Your task to perform on an android device: set the timer Image 0: 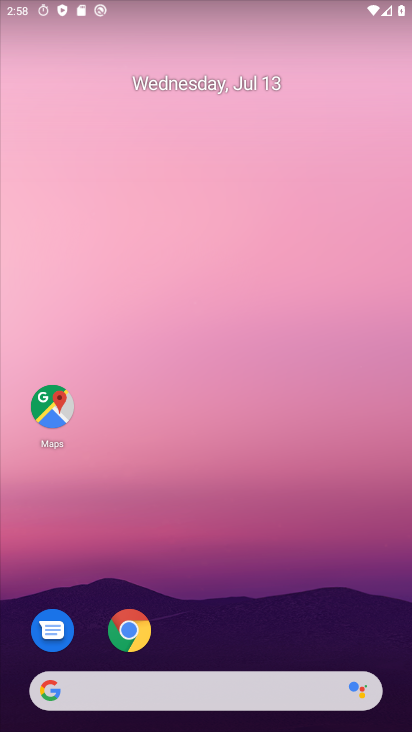
Step 0: drag from (92, 541) to (288, 8)
Your task to perform on an android device: set the timer Image 1: 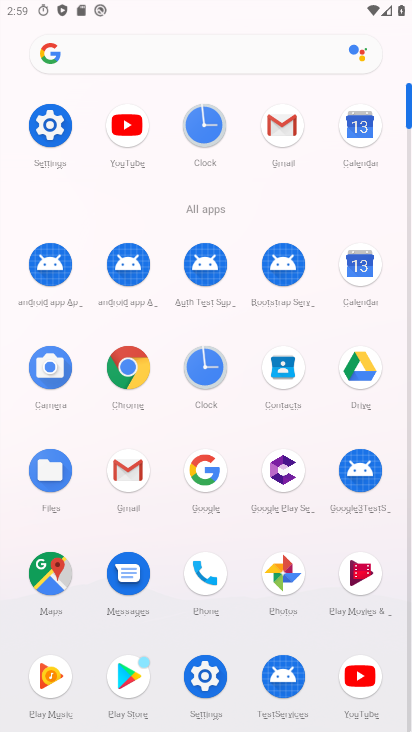
Step 1: click (220, 373)
Your task to perform on an android device: set the timer Image 2: 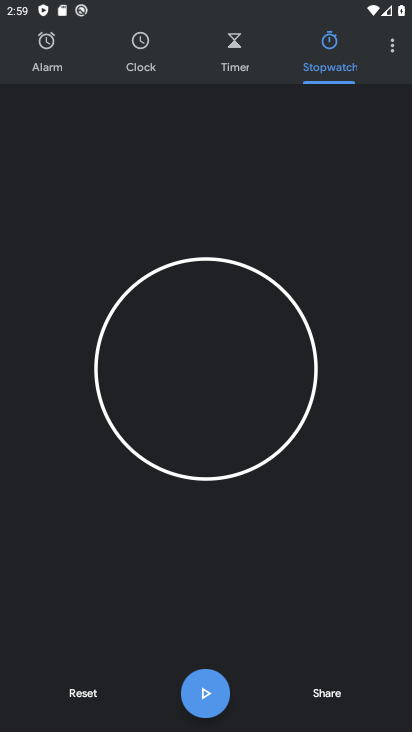
Step 2: click (240, 55)
Your task to perform on an android device: set the timer Image 3: 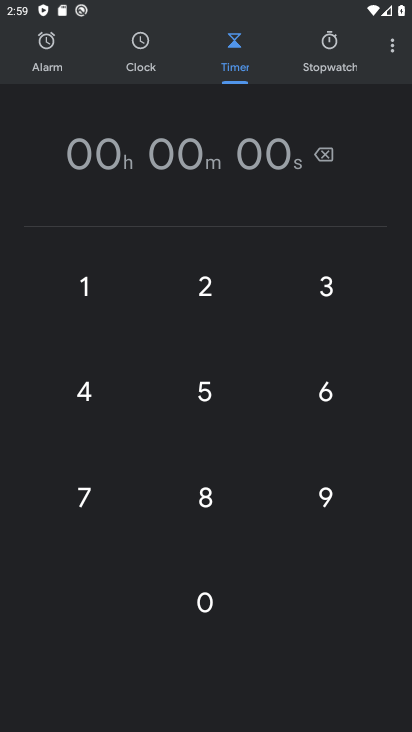
Step 3: click (209, 385)
Your task to perform on an android device: set the timer Image 4: 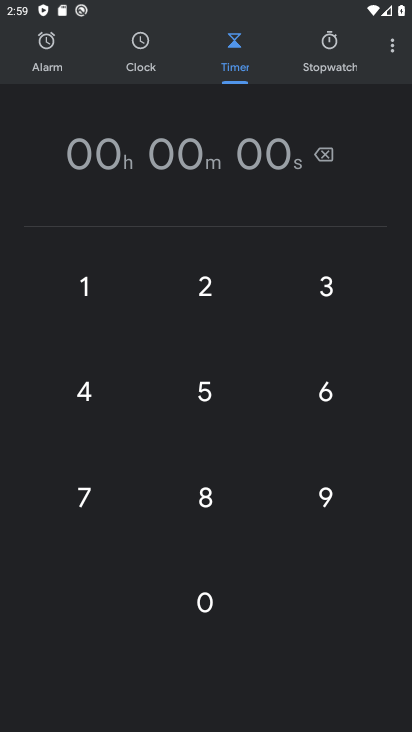
Step 4: click (209, 385)
Your task to perform on an android device: set the timer Image 5: 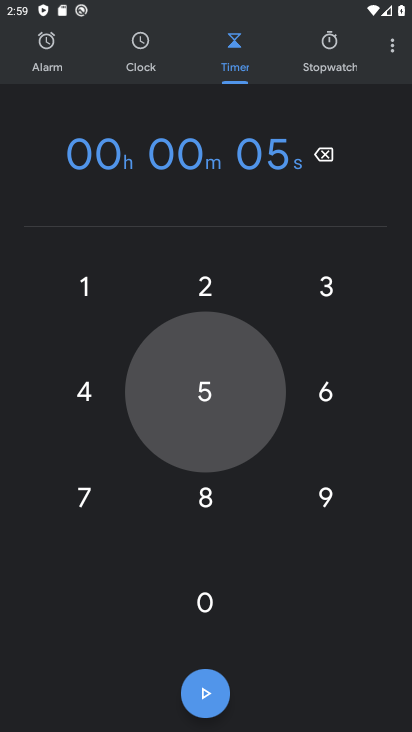
Step 5: click (209, 385)
Your task to perform on an android device: set the timer Image 6: 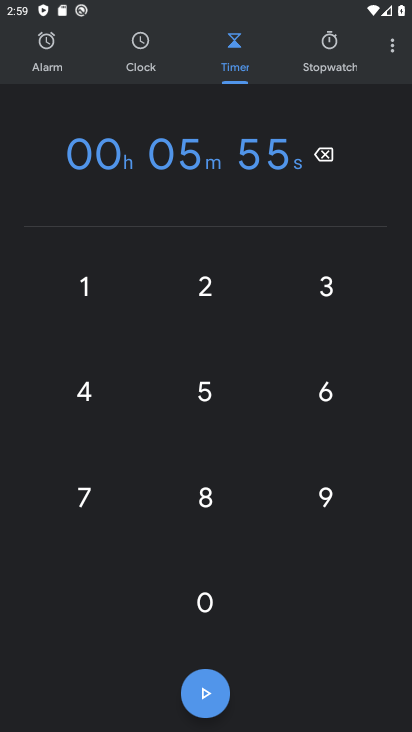
Step 6: task complete